Your task to perform on an android device: Open Google Chrome Image 0: 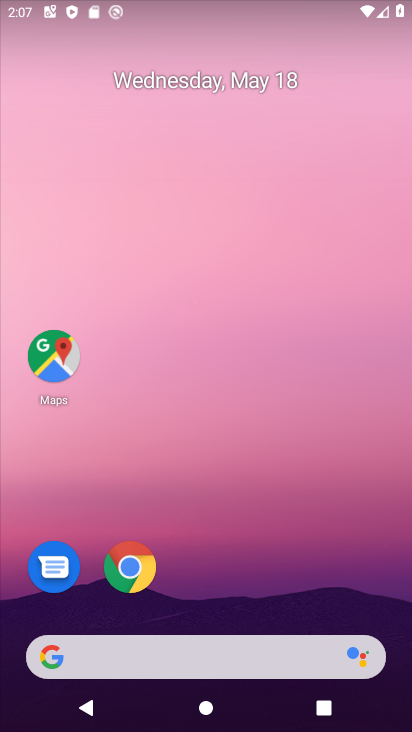
Step 0: drag from (288, 585) to (318, 168)
Your task to perform on an android device: Open Google Chrome Image 1: 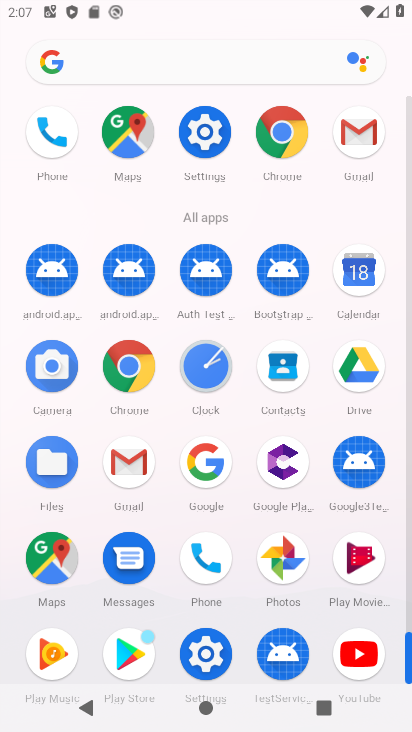
Step 1: click (188, 462)
Your task to perform on an android device: Open Google Chrome Image 2: 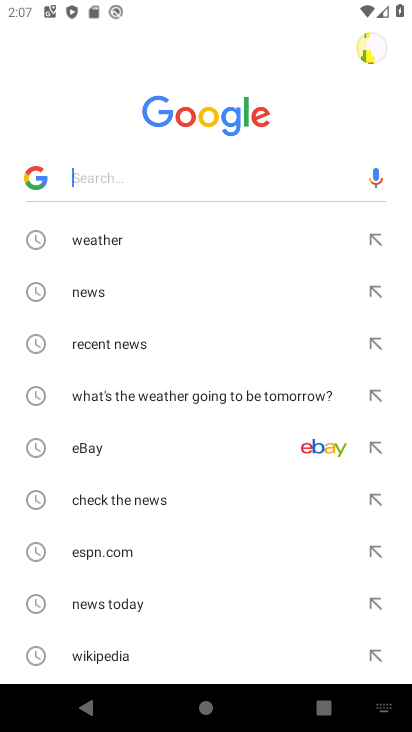
Step 2: task complete